Your task to perform on an android device: turn on location history Image 0: 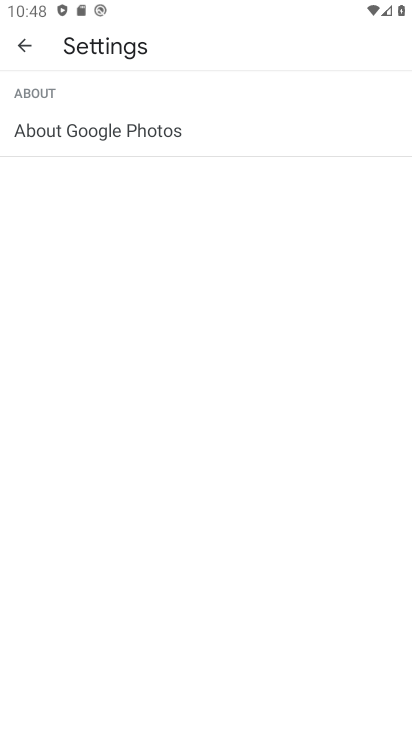
Step 0: drag from (126, 621) to (294, 28)
Your task to perform on an android device: turn on location history Image 1: 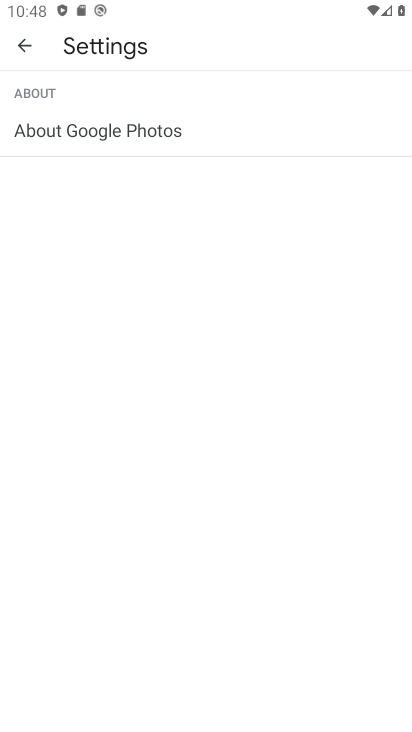
Step 1: press home button
Your task to perform on an android device: turn on location history Image 2: 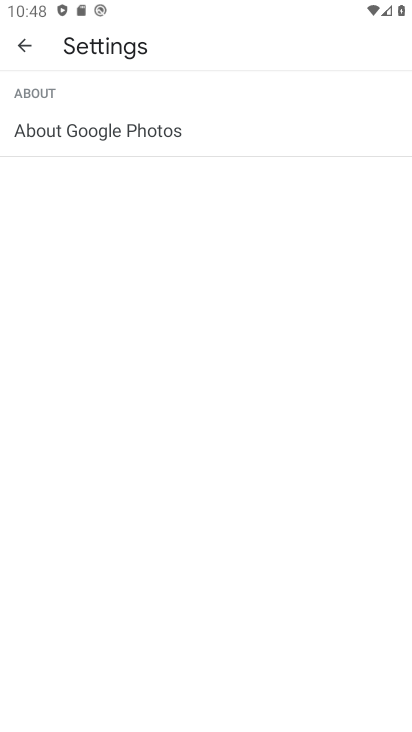
Step 2: press home button
Your task to perform on an android device: turn on location history Image 3: 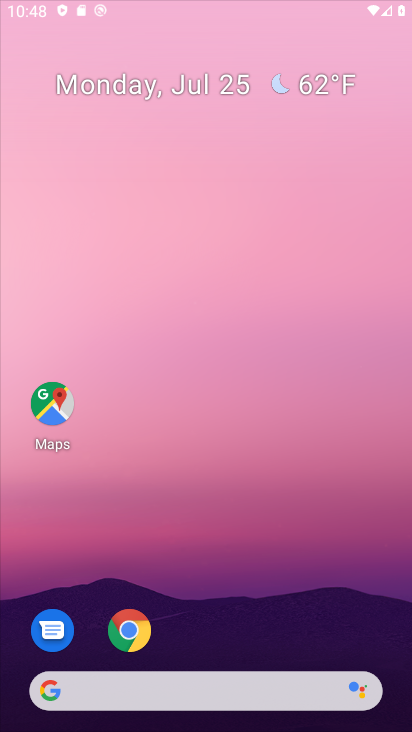
Step 3: click (257, 223)
Your task to perform on an android device: turn on location history Image 4: 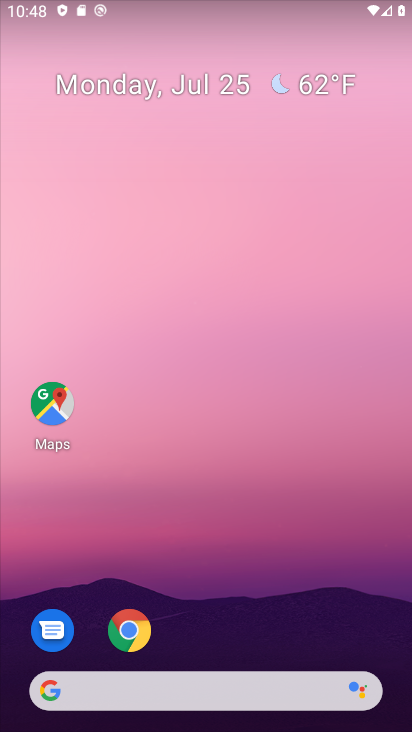
Step 4: drag from (165, 651) to (229, 272)
Your task to perform on an android device: turn on location history Image 5: 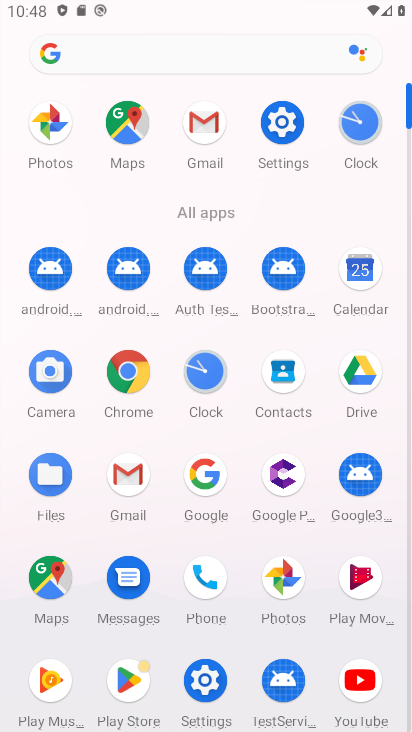
Step 5: click (293, 106)
Your task to perform on an android device: turn on location history Image 6: 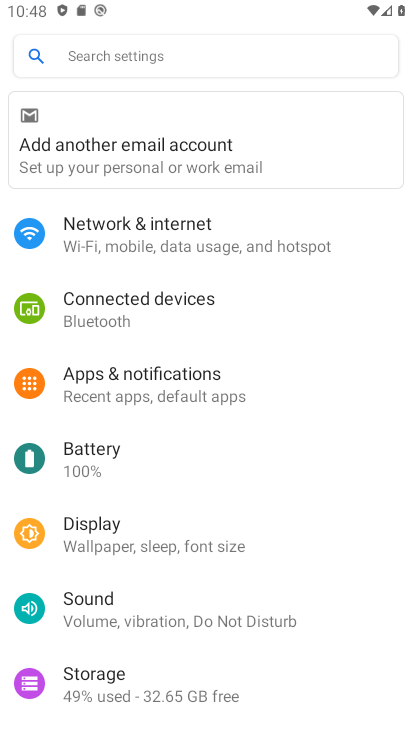
Step 6: drag from (149, 614) to (305, 163)
Your task to perform on an android device: turn on location history Image 7: 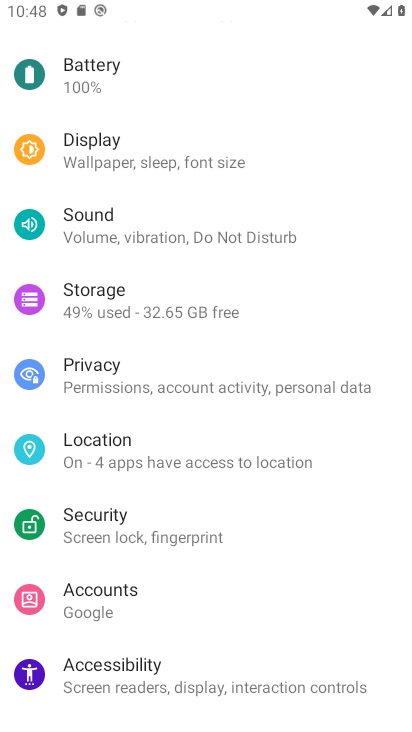
Step 7: click (133, 444)
Your task to perform on an android device: turn on location history Image 8: 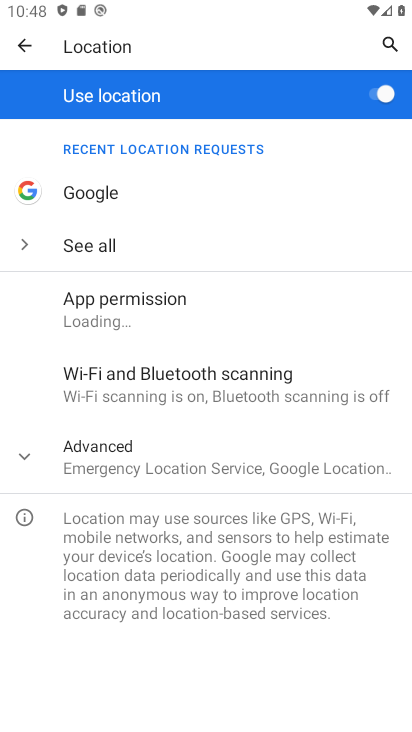
Step 8: click (121, 450)
Your task to perform on an android device: turn on location history Image 9: 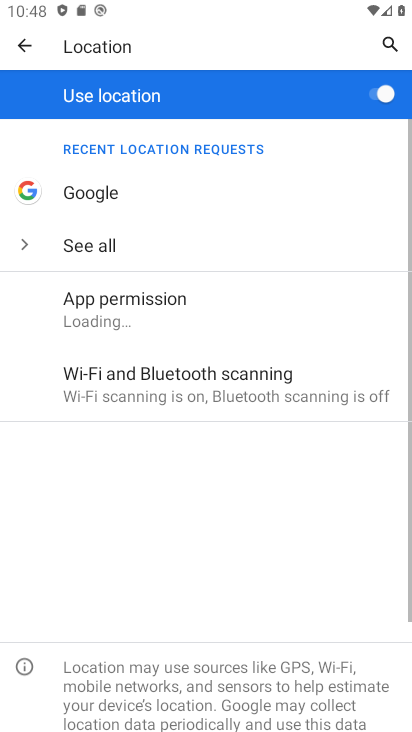
Step 9: drag from (114, 444) to (317, 71)
Your task to perform on an android device: turn on location history Image 10: 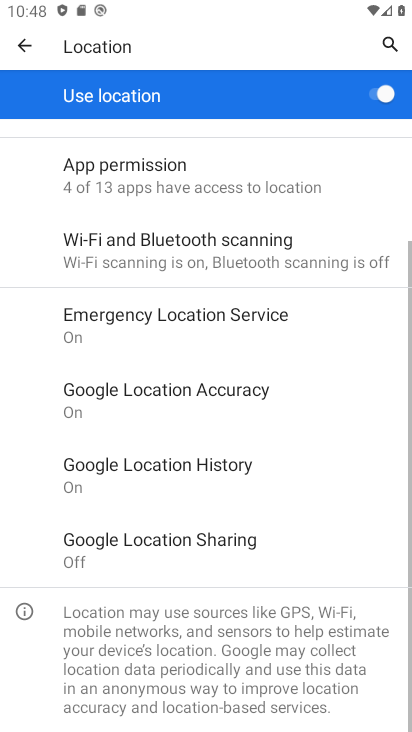
Step 10: click (227, 493)
Your task to perform on an android device: turn on location history Image 11: 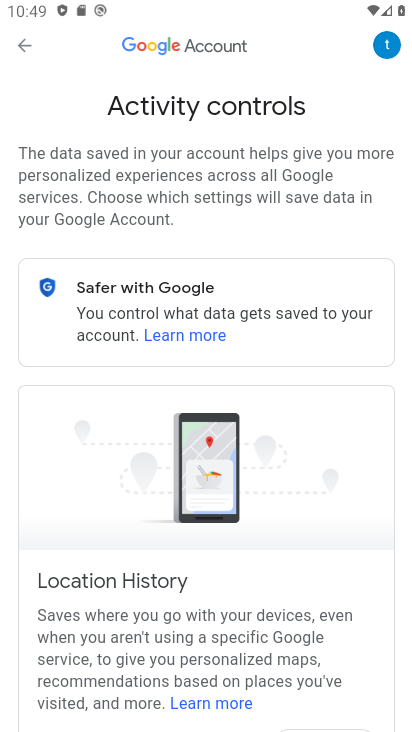
Step 11: task complete